Your task to perform on an android device: find snoozed emails in the gmail app Image 0: 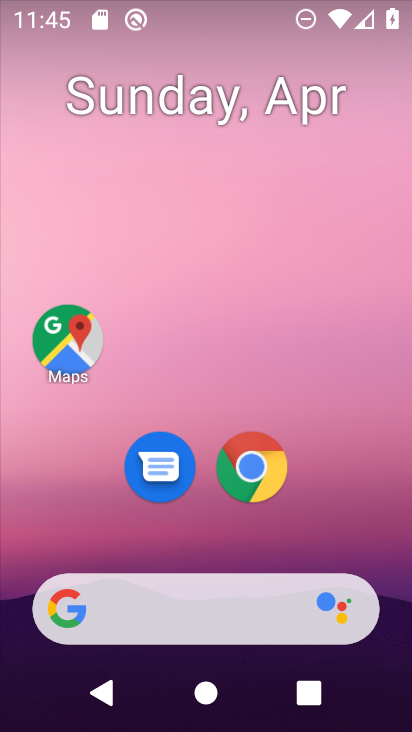
Step 0: drag from (351, 525) to (372, 111)
Your task to perform on an android device: find snoozed emails in the gmail app Image 1: 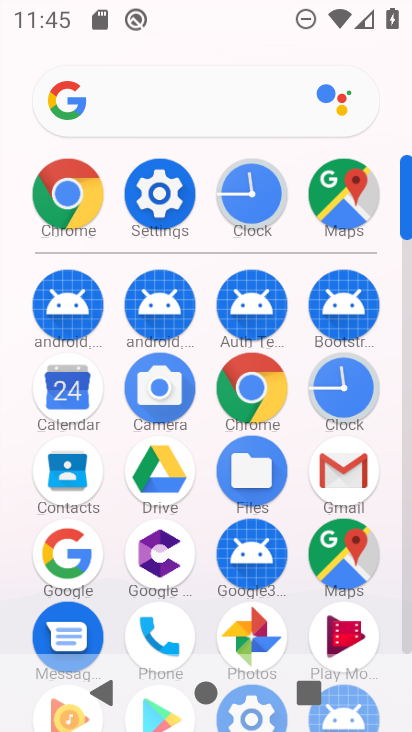
Step 1: click (348, 480)
Your task to perform on an android device: find snoozed emails in the gmail app Image 2: 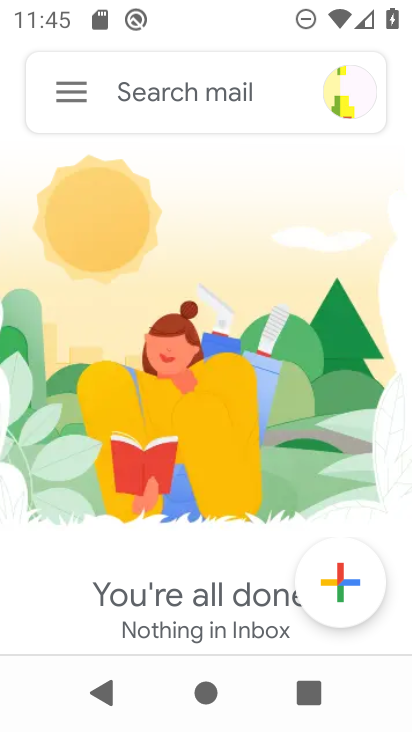
Step 2: click (59, 89)
Your task to perform on an android device: find snoozed emails in the gmail app Image 3: 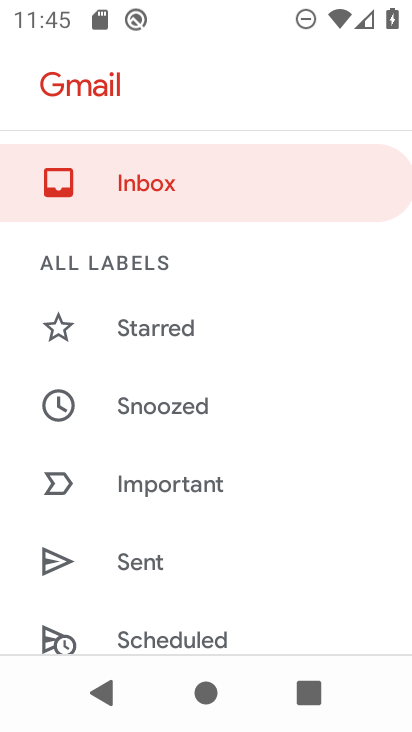
Step 3: drag from (289, 561) to (300, 352)
Your task to perform on an android device: find snoozed emails in the gmail app Image 4: 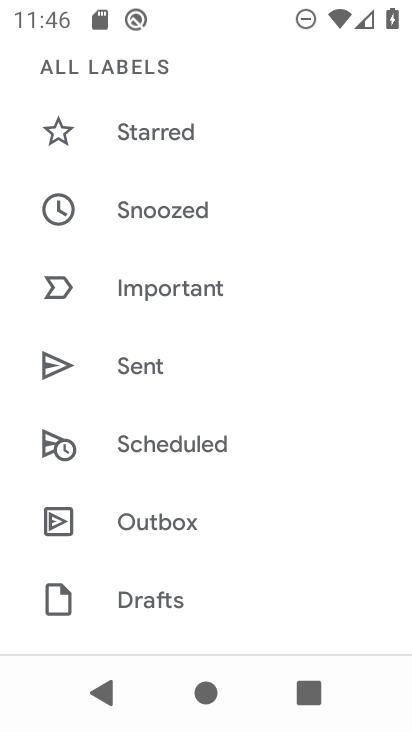
Step 4: drag from (274, 590) to (284, 403)
Your task to perform on an android device: find snoozed emails in the gmail app Image 5: 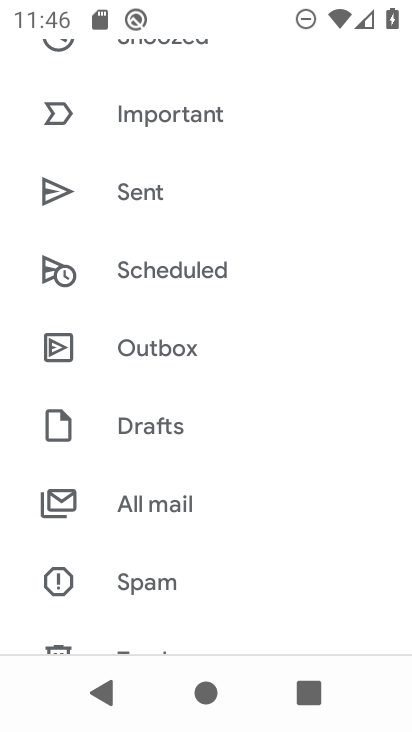
Step 5: drag from (267, 543) to (295, 369)
Your task to perform on an android device: find snoozed emails in the gmail app Image 6: 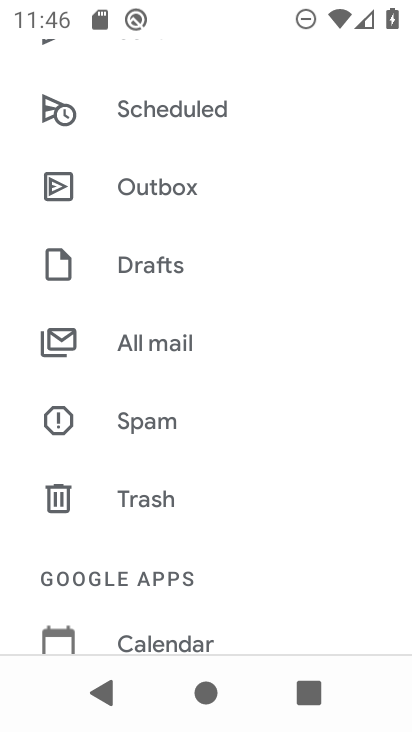
Step 6: drag from (305, 519) to (316, 268)
Your task to perform on an android device: find snoozed emails in the gmail app Image 7: 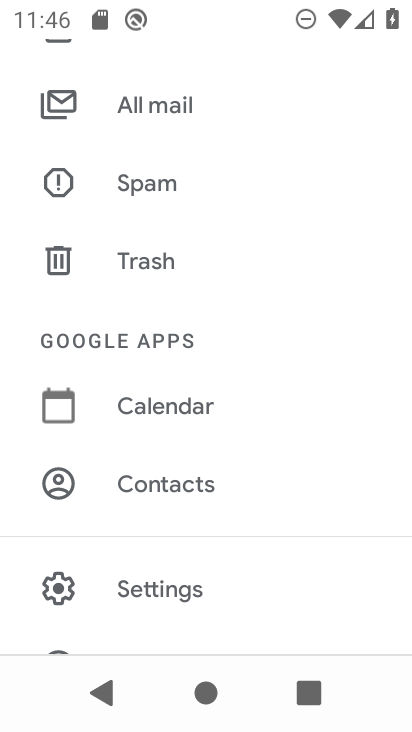
Step 7: drag from (280, 464) to (312, 316)
Your task to perform on an android device: find snoozed emails in the gmail app Image 8: 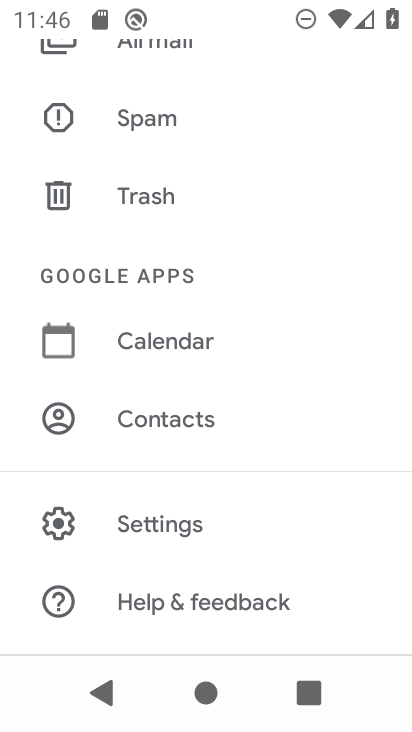
Step 8: drag from (302, 215) to (263, 527)
Your task to perform on an android device: find snoozed emails in the gmail app Image 9: 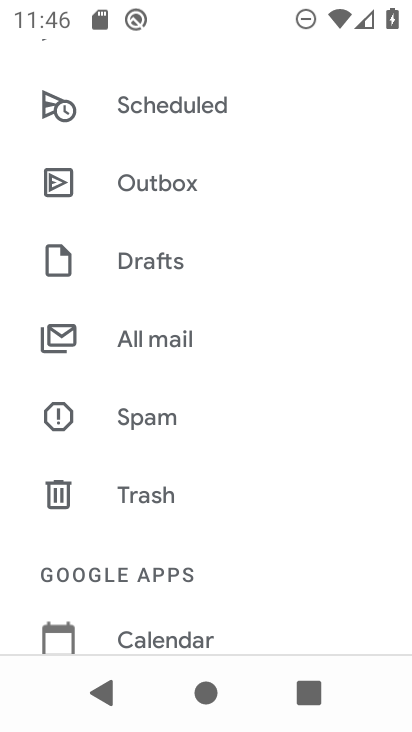
Step 9: drag from (246, 243) to (227, 435)
Your task to perform on an android device: find snoozed emails in the gmail app Image 10: 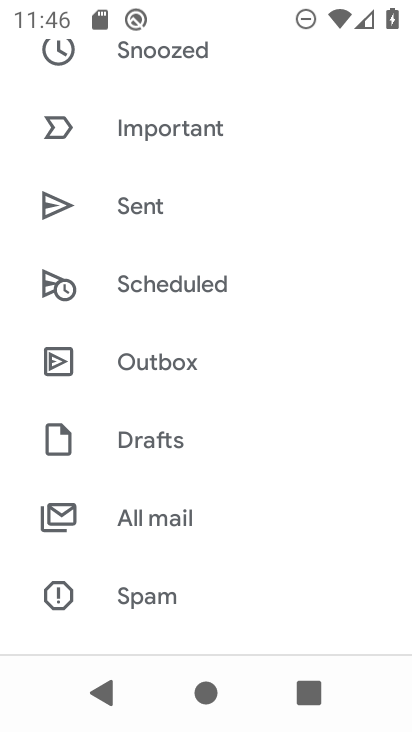
Step 10: drag from (285, 232) to (291, 330)
Your task to perform on an android device: find snoozed emails in the gmail app Image 11: 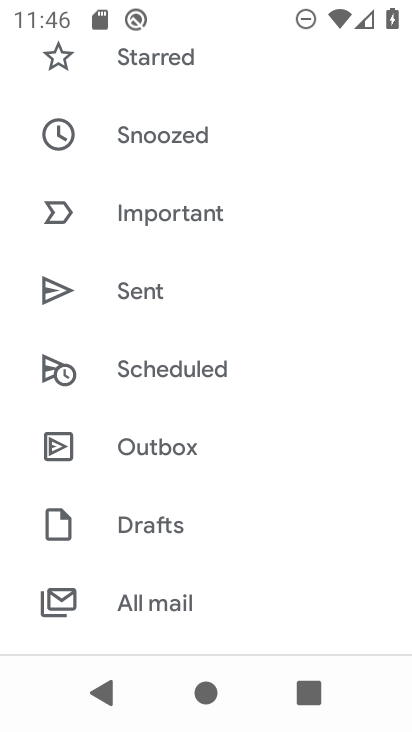
Step 11: drag from (299, 188) to (284, 428)
Your task to perform on an android device: find snoozed emails in the gmail app Image 12: 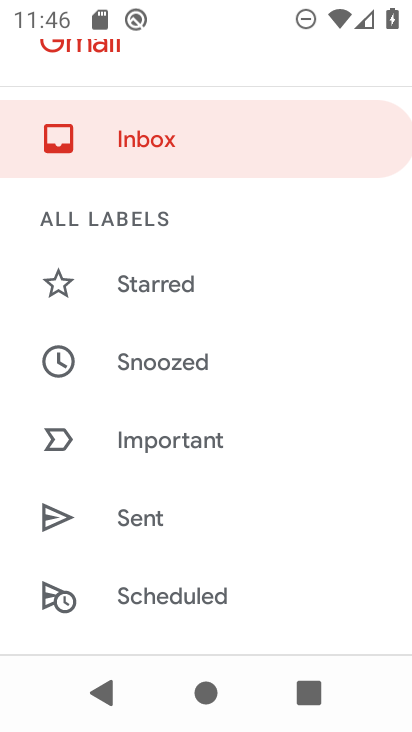
Step 12: click (170, 373)
Your task to perform on an android device: find snoozed emails in the gmail app Image 13: 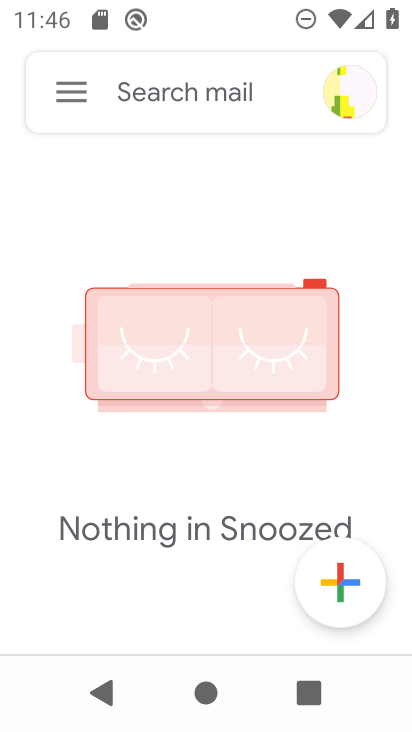
Step 13: task complete